Your task to perform on an android device: Go to sound settings Image 0: 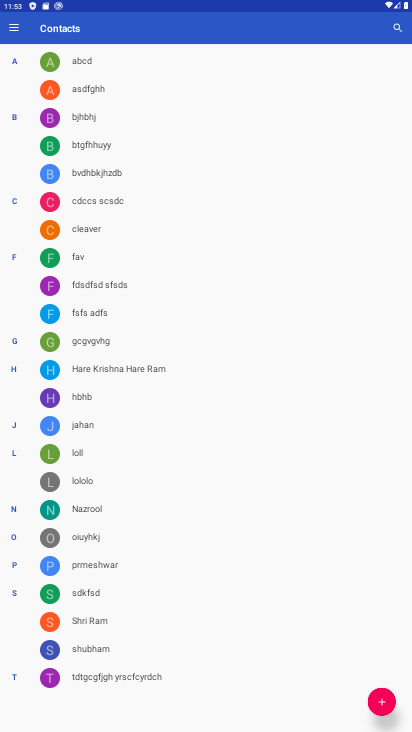
Step 0: press home button
Your task to perform on an android device: Go to sound settings Image 1: 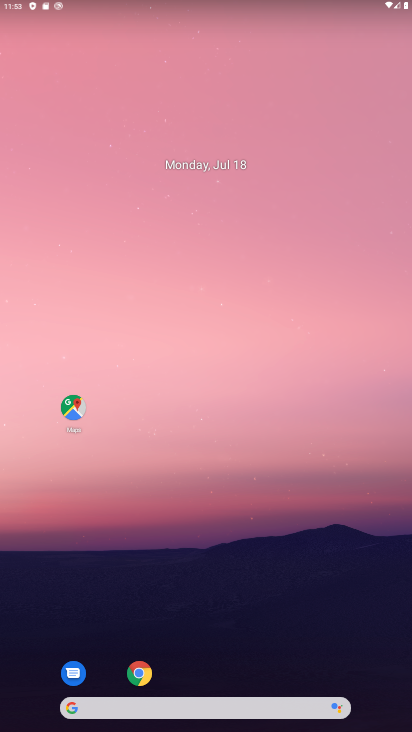
Step 1: drag from (221, 669) to (167, 33)
Your task to perform on an android device: Go to sound settings Image 2: 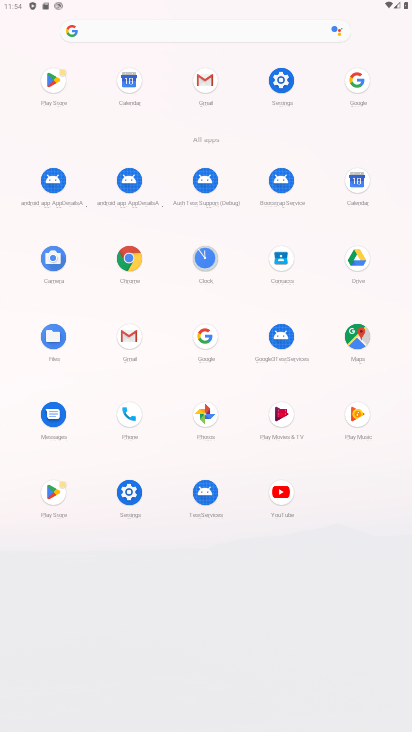
Step 2: click (275, 91)
Your task to perform on an android device: Go to sound settings Image 3: 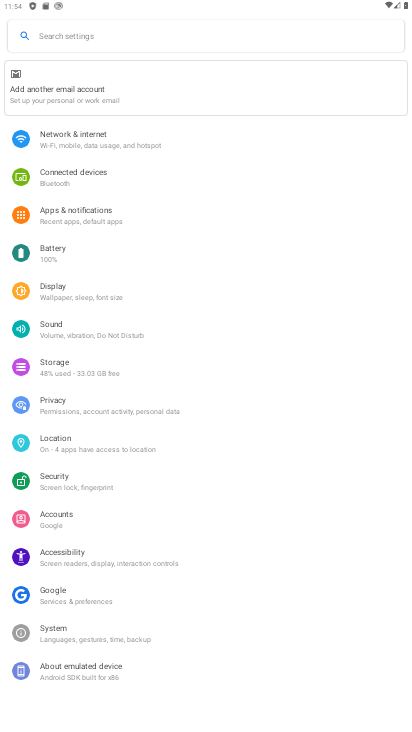
Step 3: click (67, 326)
Your task to perform on an android device: Go to sound settings Image 4: 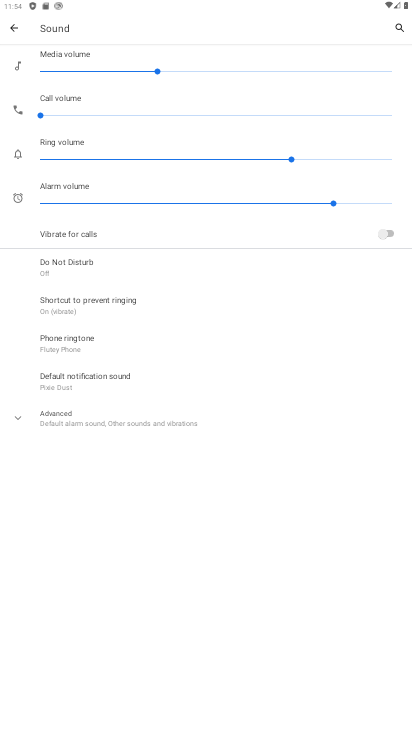
Step 4: task complete